Your task to perform on an android device: delete location history Image 0: 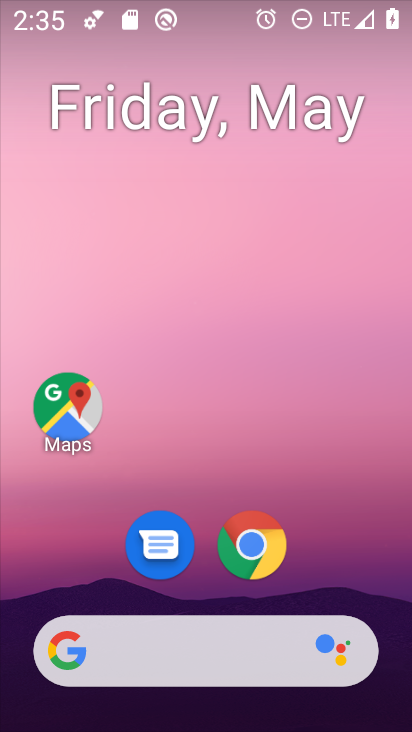
Step 0: click (82, 413)
Your task to perform on an android device: delete location history Image 1: 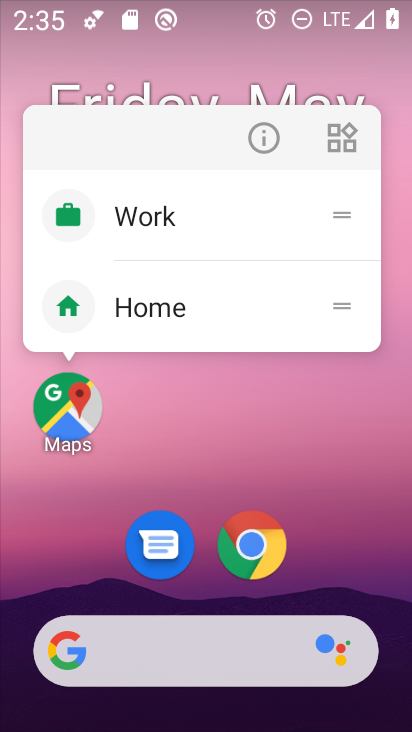
Step 1: click (77, 414)
Your task to perform on an android device: delete location history Image 2: 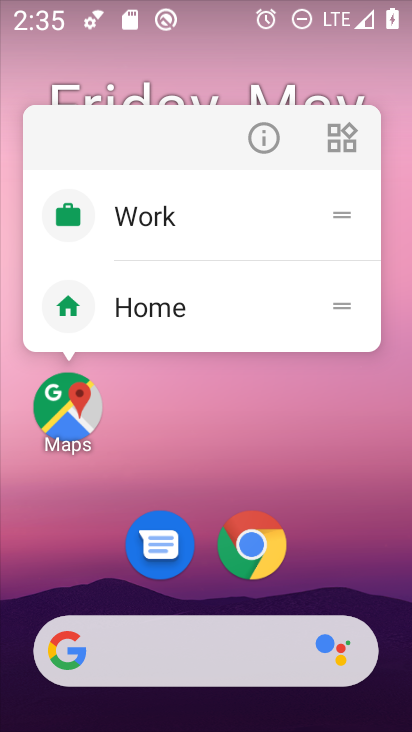
Step 2: click (77, 414)
Your task to perform on an android device: delete location history Image 3: 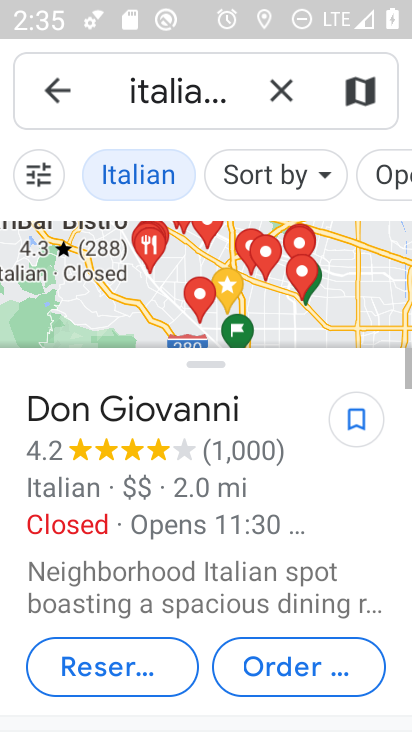
Step 3: click (284, 85)
Your task to perform on an android device: delete location history Image 4: 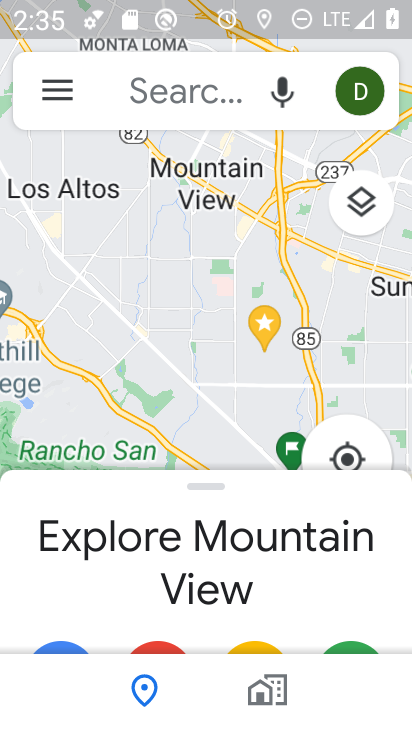
Step 4: click (59, 83)
Your task to perform on an android device: delete location history Image 5: 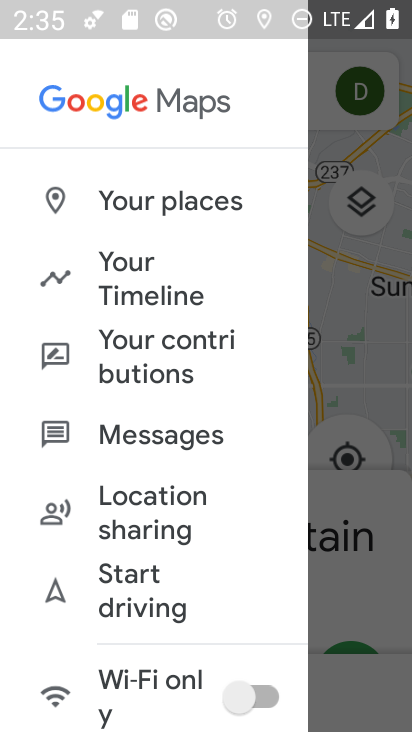
Step 5: drag from (149, 599) to (150, 261)
Your task to perform on an android device: delete location history Image 6: 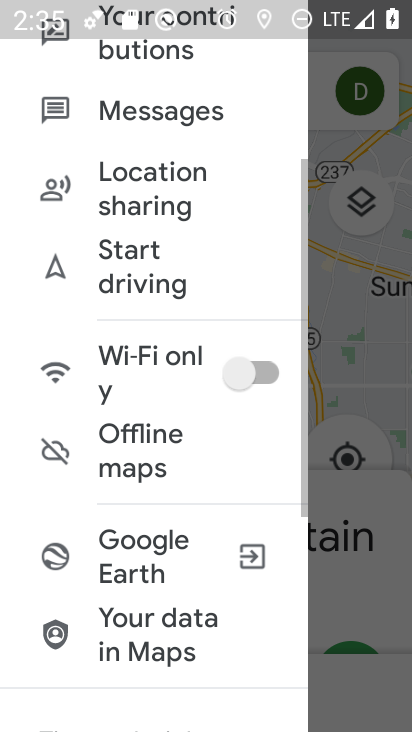
Step 6: drag from (154, 266) to (193, 540)
Your task to perform on an android device: delete location history Image 7: 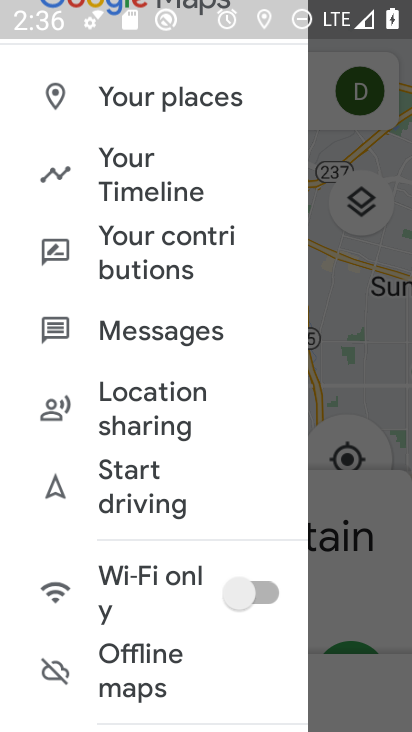
Step 7: click (149, 182)
Your task to perform on an android device: delete location history Image 8: 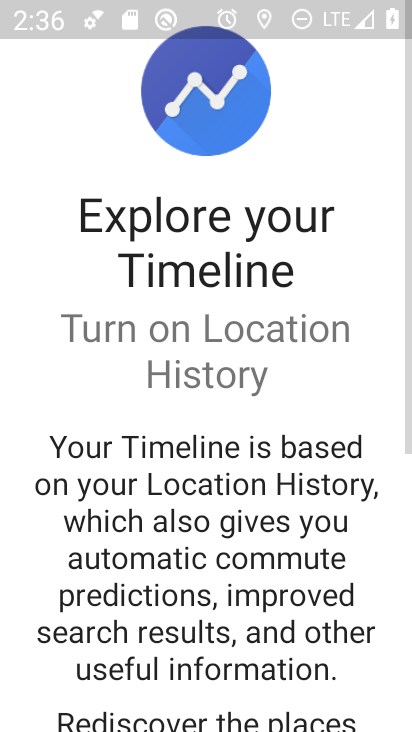
Step 8: drag from (295, 645) to (328, 194)
Your task to perform on an android device: delete location history Image 9: 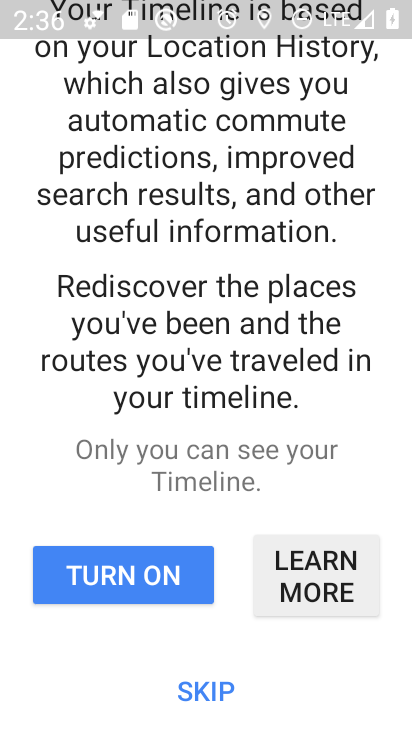
Step 9: click (214, 680)
Your task to perform on an android device: delete location history Image 10: 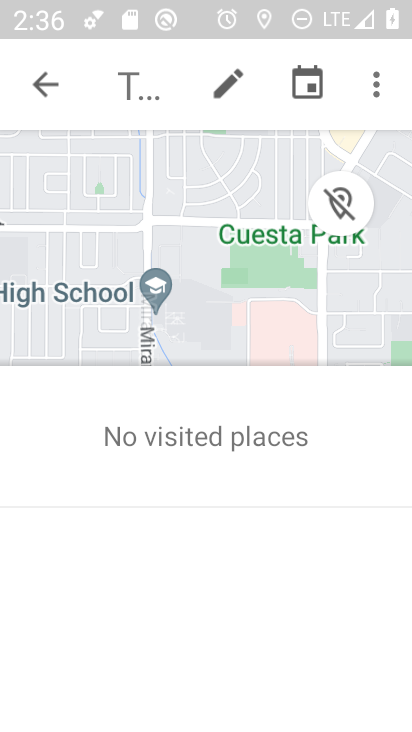
Step 10: click (390, 79)
Your task to perform on an android device: delete location history Image 11: 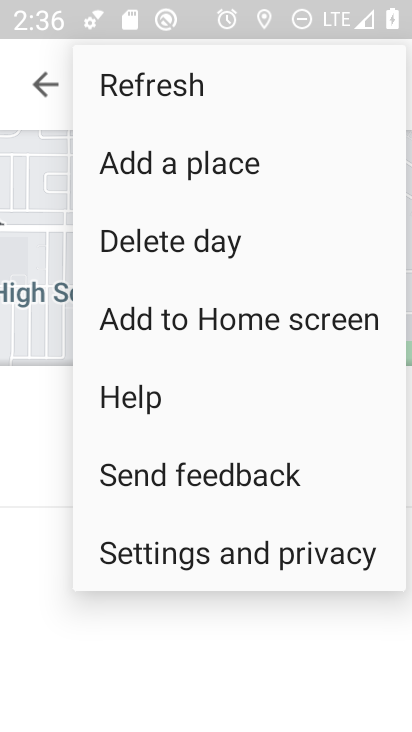
Step 11: click (235, 548)
Your task to perform on an android device: delete location history Image 12: 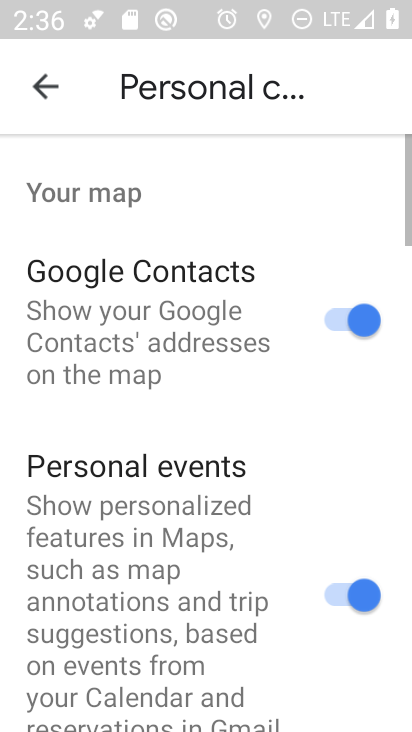
Step 12: drag from (182, 693) to (226, 248)
Your task to perform on an android device: delete location history Image 13: 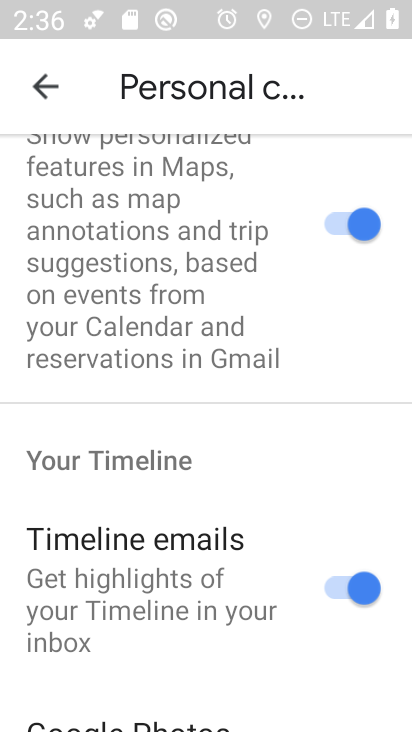
Step 13: drag from (234, 644) to (243, 259)
Your task to perform on an android device: delete location history Image 14: 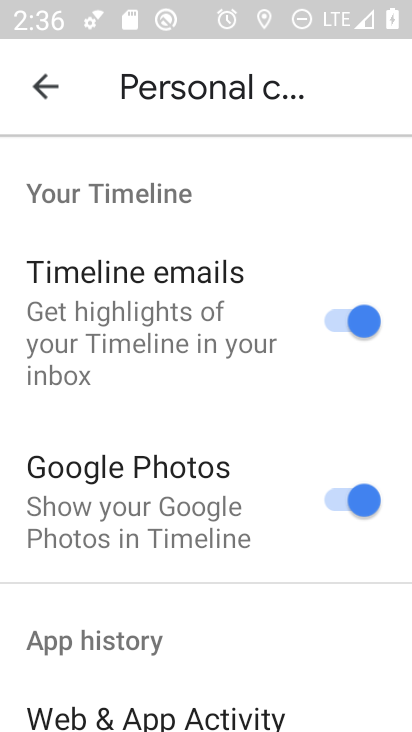
Step 14: drag from (227, 667) to (237, 282)
Your task to perform on an android device: delete location history Image 15: 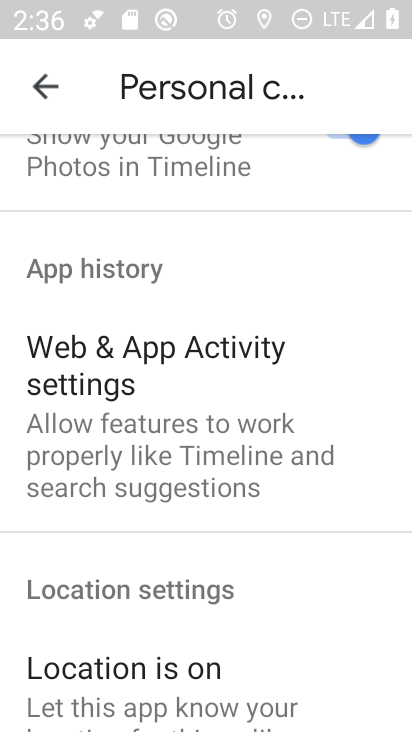
Step 15: drag from (215, 599) to (223, 196)
Your task to perform on an android device: delete location history Image 16: 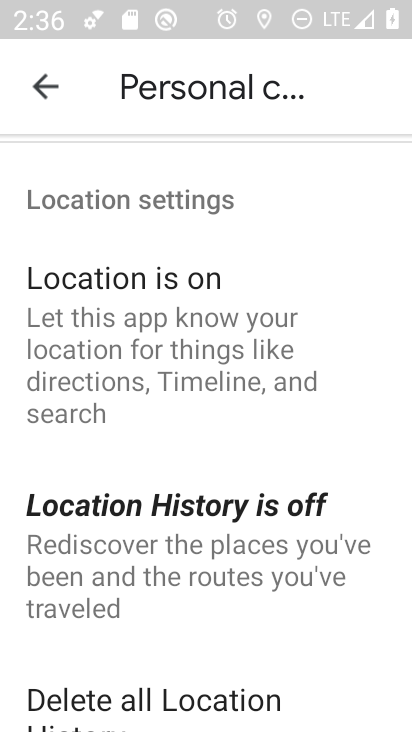
Step 16: drag from (238, 633) to (250, 269)
Your task to perform on an android device: delete location history Image 17: 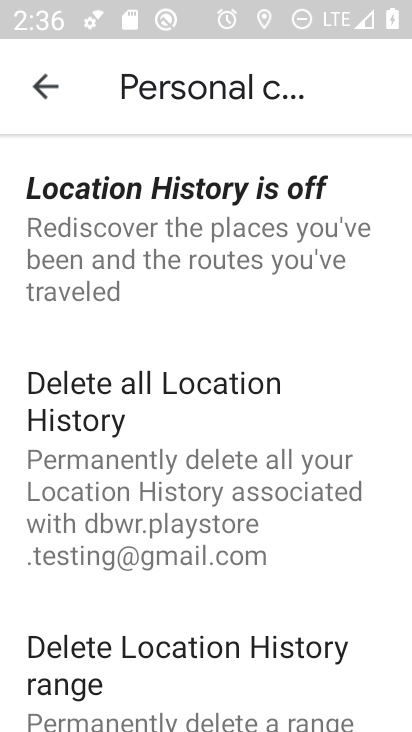
Step 17: click (198, 484)
Your task to perform on an android device: delete location history Image 18: 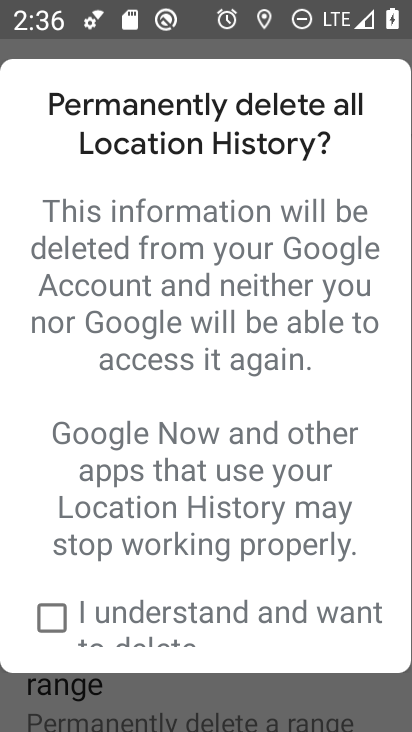
Step 18: click (129, 611)
Your task to perform on an android device: delete location history Image 19: 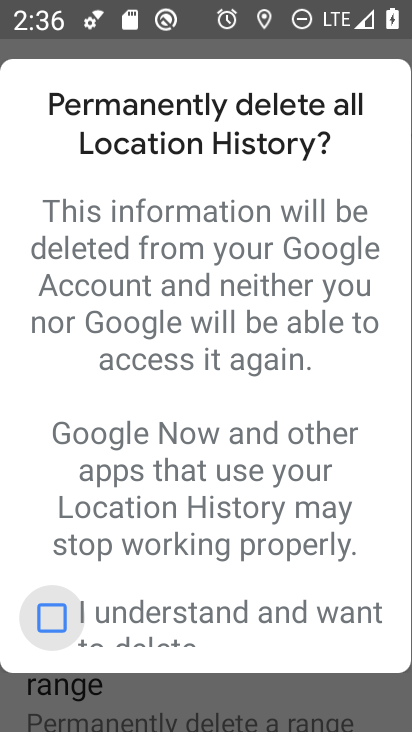
Step 19: task complete